Your task to perform on an android device: turn on translation in the chrome app Image 0: 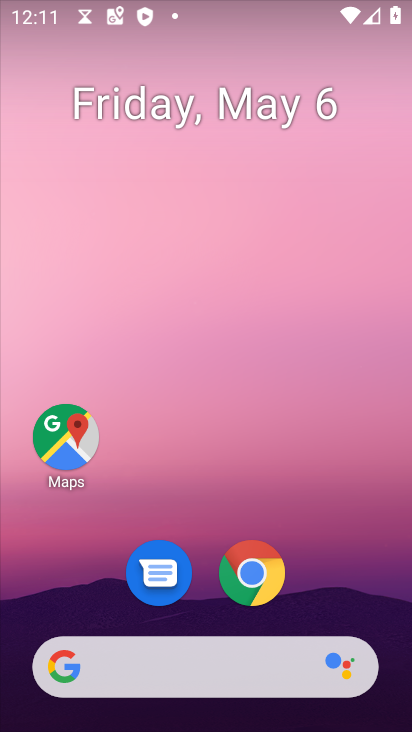
Step 0: drag from (330, 566) to (361, 260)
Your task to perform on an android device: turn on translation in the chrome app Image 1: 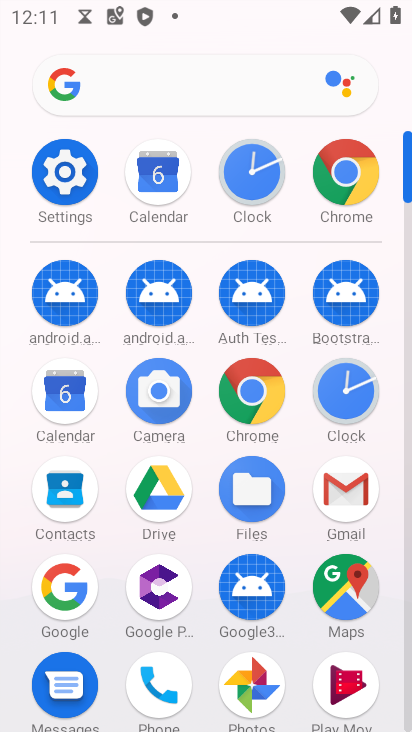
Step 1: click (256, 392)
Your task to perform on an android device: turn on translation in the chrome app Image 2: 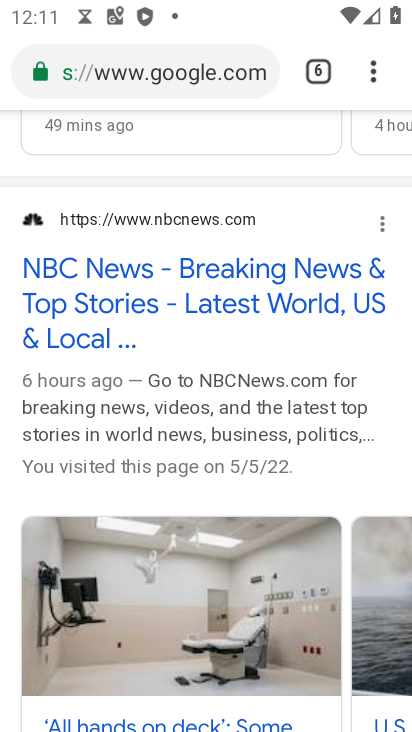
Step 2: click (353, 73)
Your task to perform on an android device: turn on translation in the chrome app Image 3: 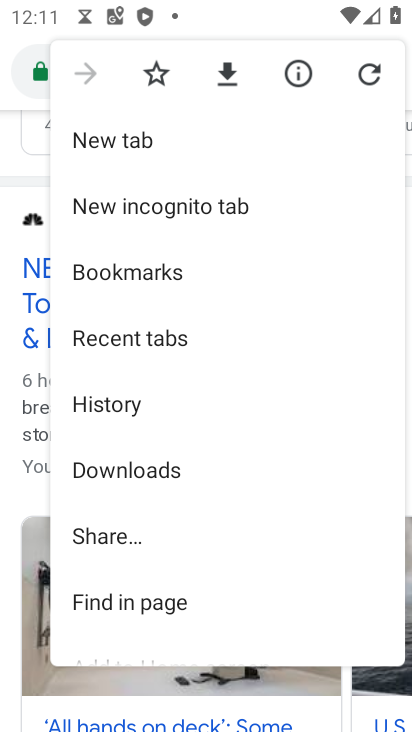
Step 3: drag from (189, 599) to (254, 327)
Your task to perform on an android device: turn on translation in the chrome app Image 4: 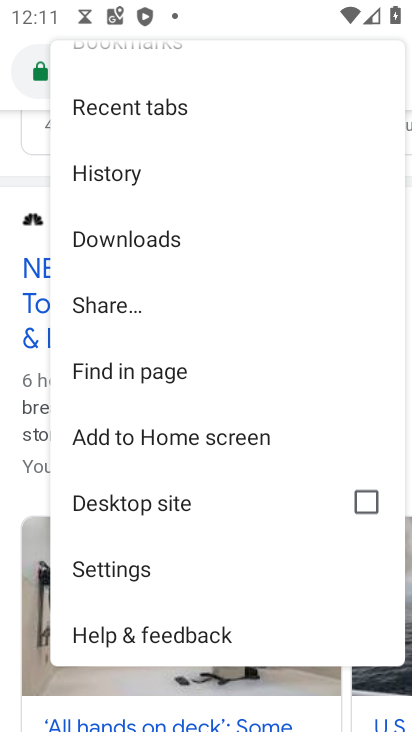
Step 4: click (132, 569)
Your task to perform on an android device: turn on translation in the chrome app Image 5: 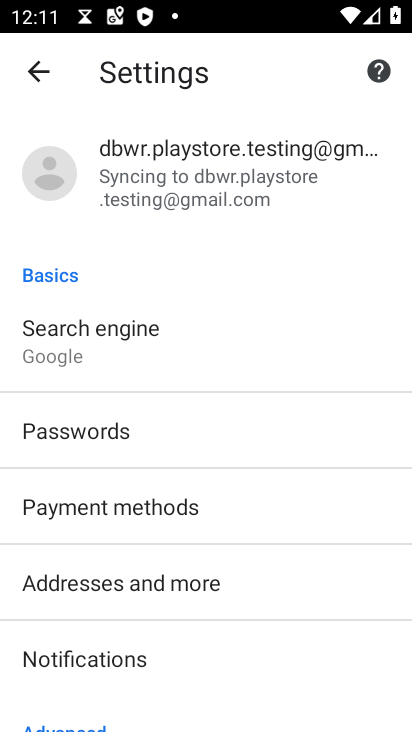
Step 5: drag from (160, 668) to (258, 372)
Your task to perform on an android device: turn on translation in the chrome app Image 6: 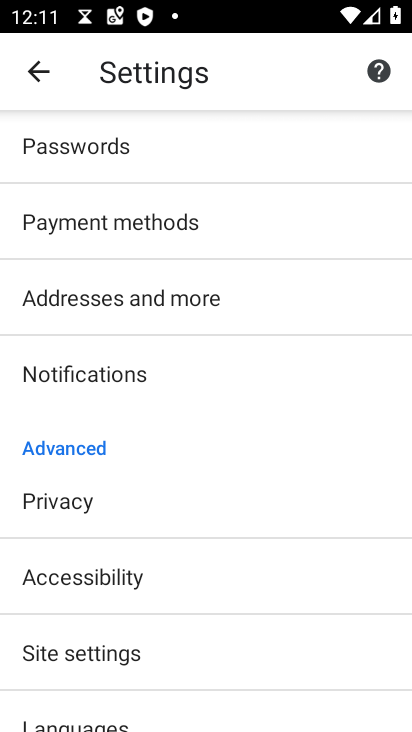
Step 6: drag from (199, 679) to (280, 393)
Your task to perform on an android device: turn on translation in the chrome app Image 7: 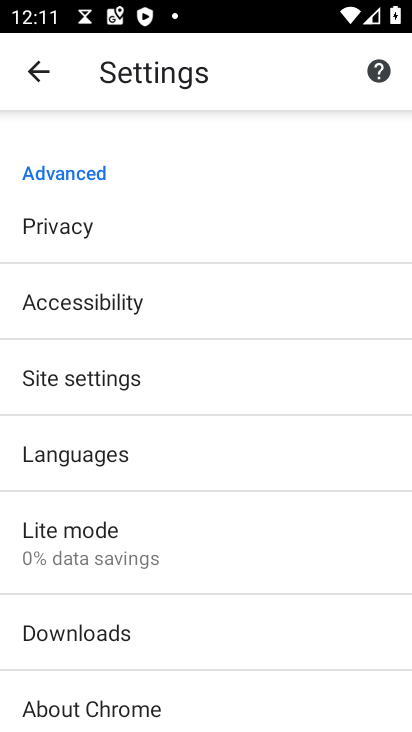
Step 7: drag from (161, 654) to (233, 393)
Your task to perform on an android device: turn on translation in the chrome app Image 8: 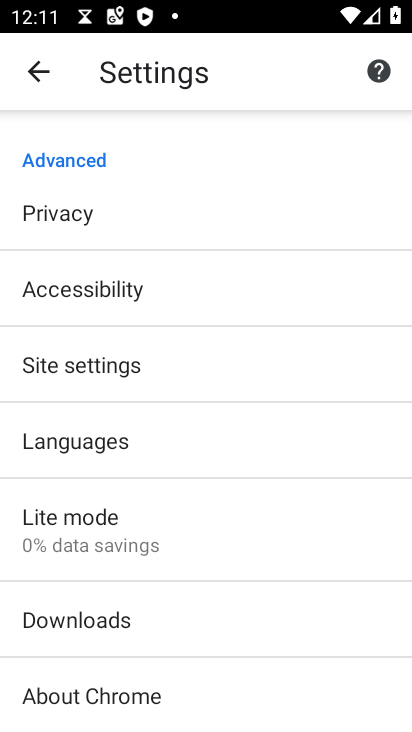
Step 8: click (151, 445)
Your task to perform on an android device: turn on translation in the chrome app Image 9: 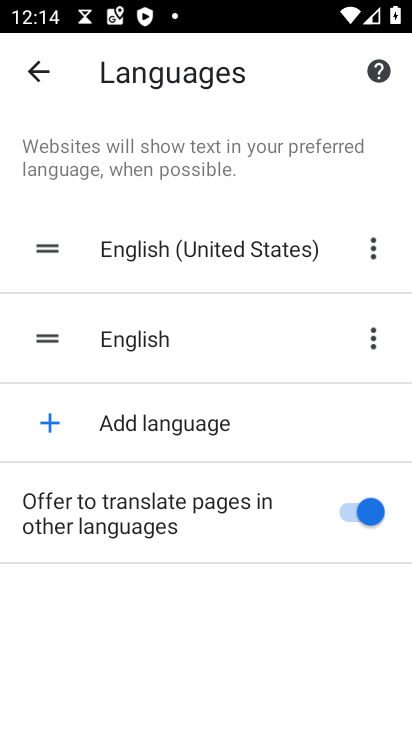
Step 9: task complete